Your task to perform on an android device: Go to Yahoo.com Image 0: 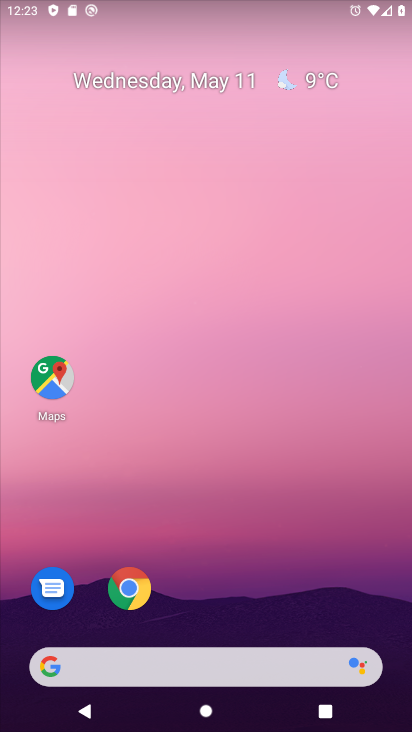
Step 0: click (139, 593)
Your task to perform on an android device: Go to Yahoo.com Image 1: 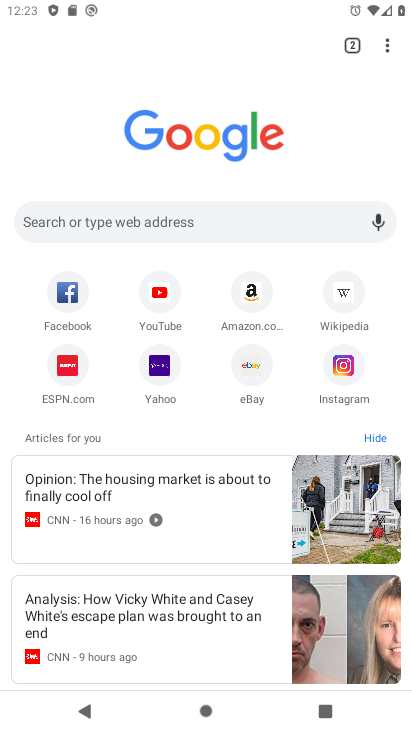
Step 1: click (161, 377)
Your task to perform on an android device: Go to Yahoo.com Image 2: 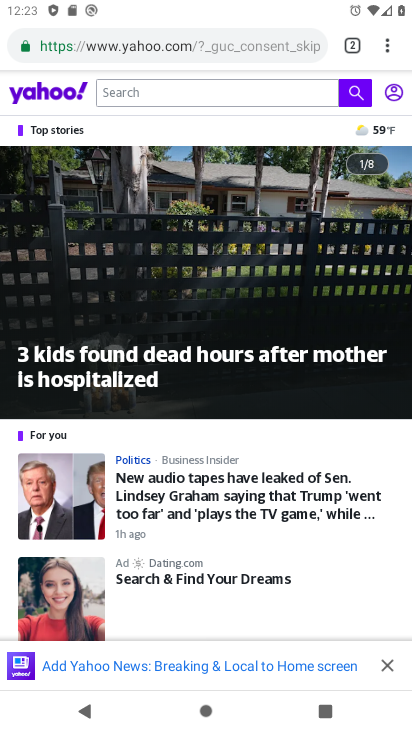
Step 2: task complete